Your task to perform on an android device: Open the map Image 0: 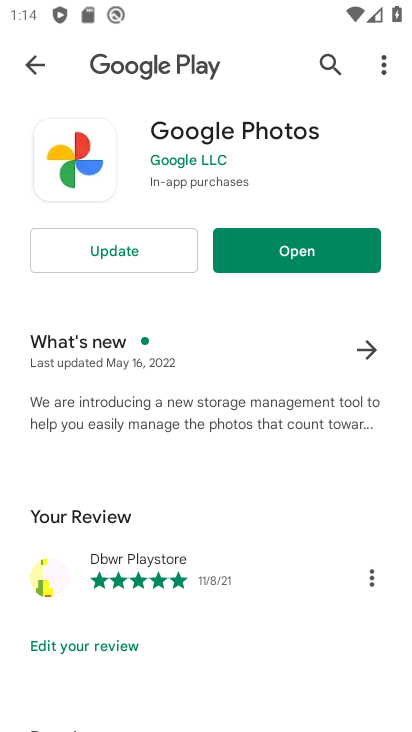
Step 0: press home button
Your task to perform on an android device: Open the map Image 1: 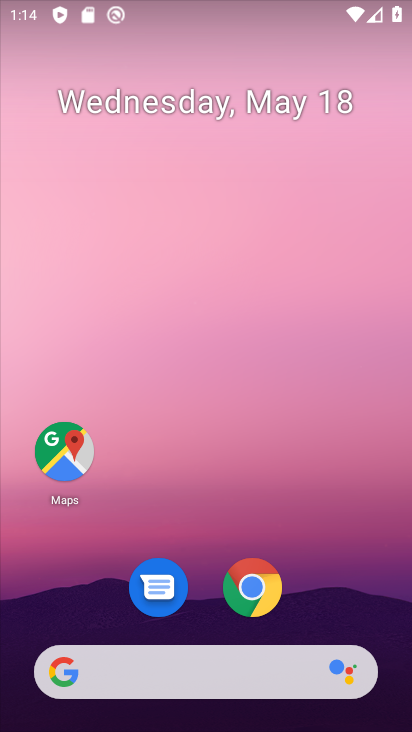
Step 1: click (51, 442)
Your task to perform on an android device: Open the map Image 2: 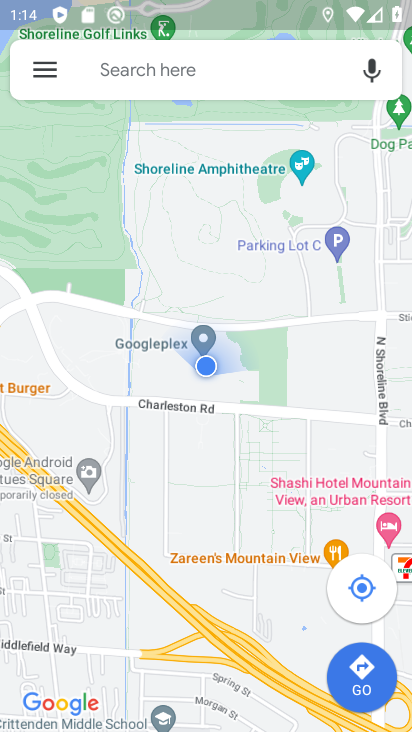
Step 2: task complete